Your task to perform on an android device: See recent photos Image 0: 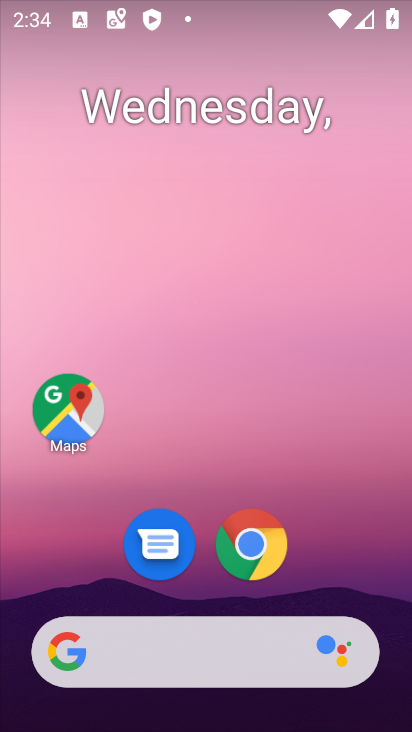
Step 0: click (288, 119)
Your task to perform on an android device: See recent photos Image 1: 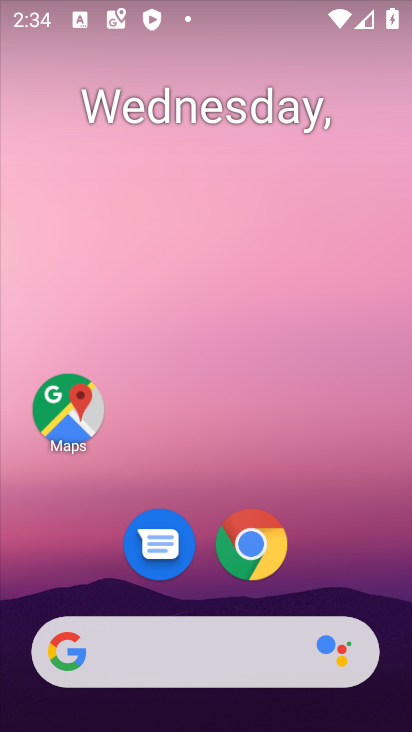
Step 1: drag from (386, 632) to (321, 141)
Your task to perform on an android device: See recent photos Image 2: 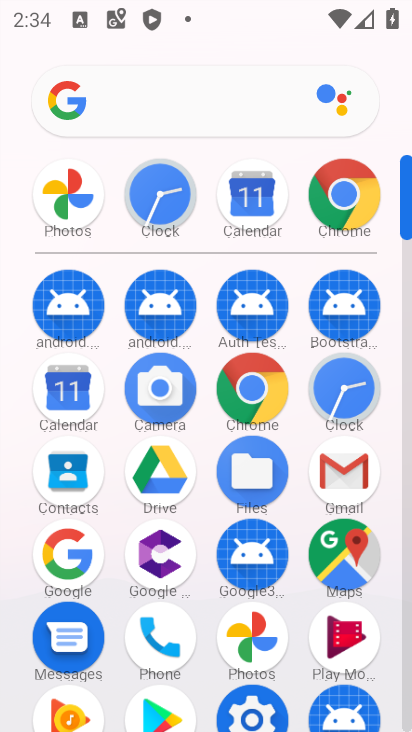
Step 2: click (407, 708)
Your task to perform on an android device: See recent photos Image 3: 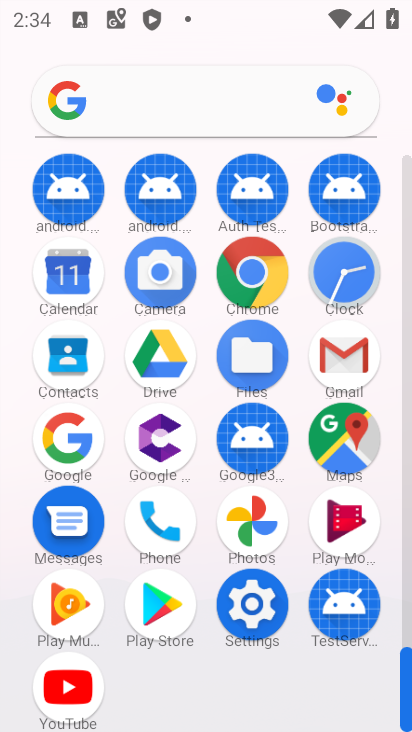
Step 3: click (255, 514)
Your task to perform on an android device: See recent photos Image 4: 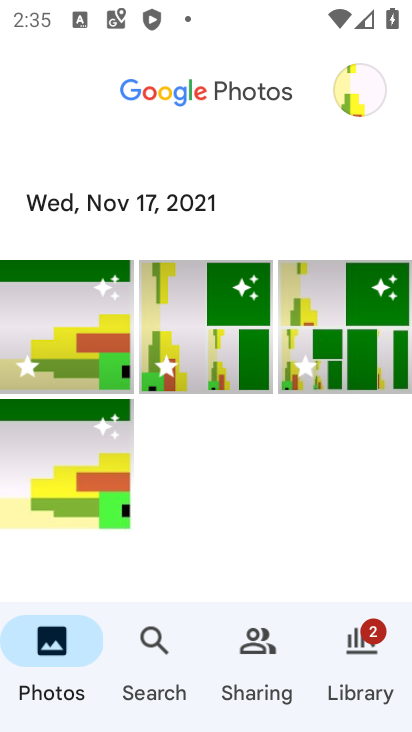
Step 4: task complete